Your task to perform on an android device: Open wifi settings Image 0: 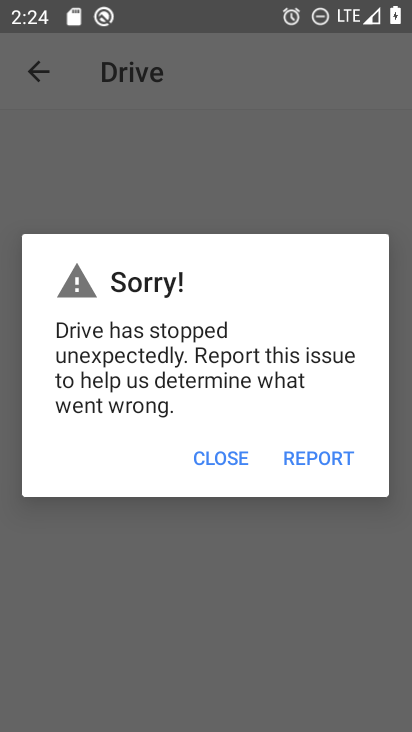
Step 0: press home button
Your task to perform on an android device: Open wifi settings Image 1: 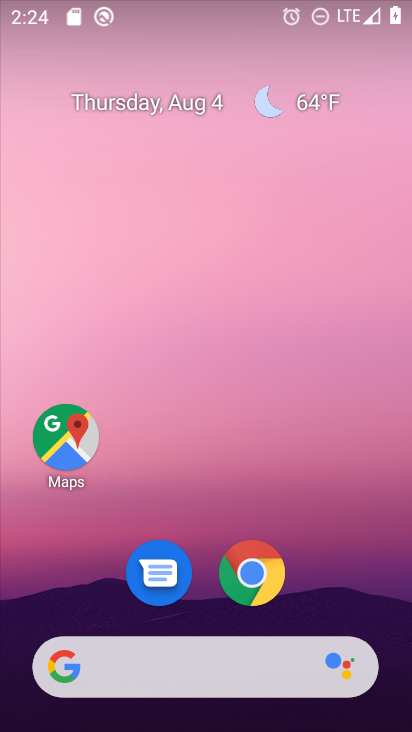
Step 1: drag from (344, 519) to (327, 94)
Your task to perform on an android device: Open wifi settings Image 2: 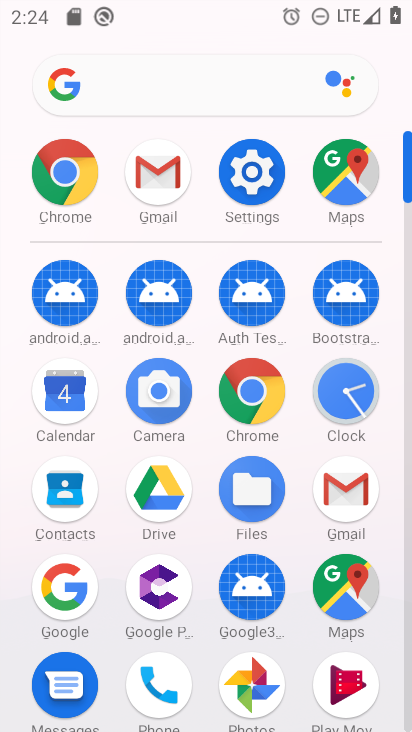
Step 2: click (266, 162)
Your task to perform on an android device: Open wifi settings Image 3: 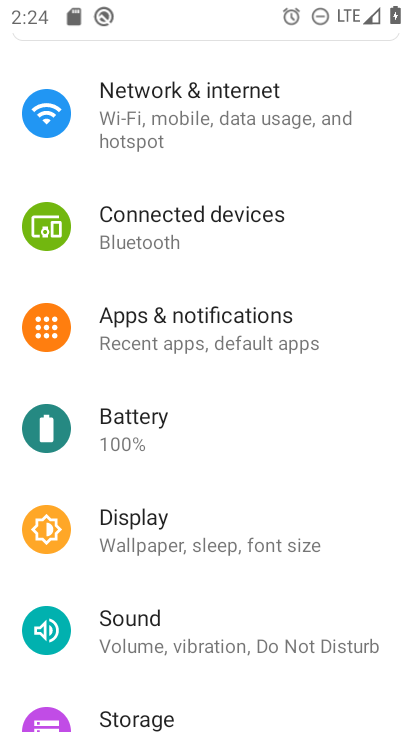
Step 3: click (248, 122)
Your task to perform on an android device: Open wifi settings Image 4: 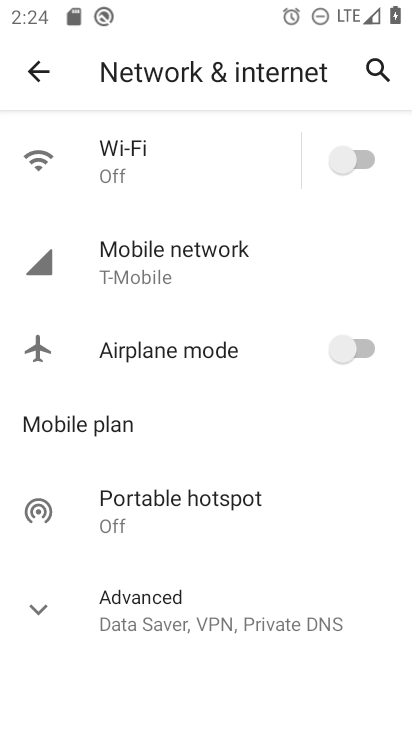
Step 4: click (167, 147)
Your task to perform on an android device: Open wifi settings Image 5: 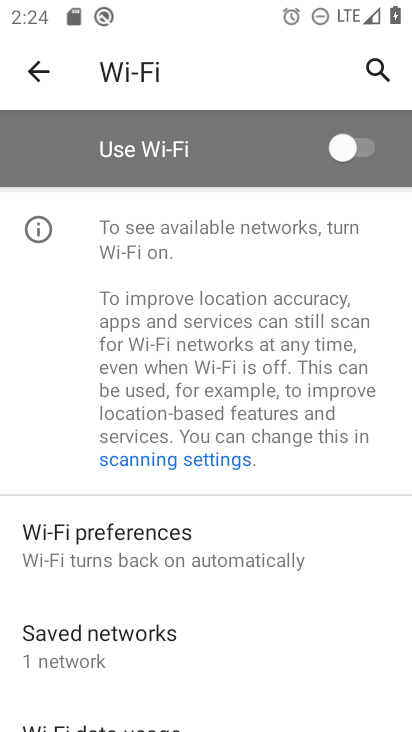
Step 5: click (344, 146)
Your task to perform on an android device: Open wifi settings Image 6: 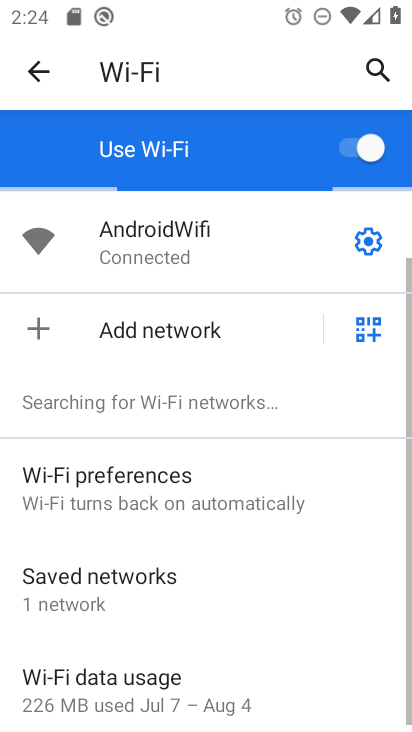
Step 6: click (373, 246)
Your task to perform on an android device: Open wifi settings Image 7: 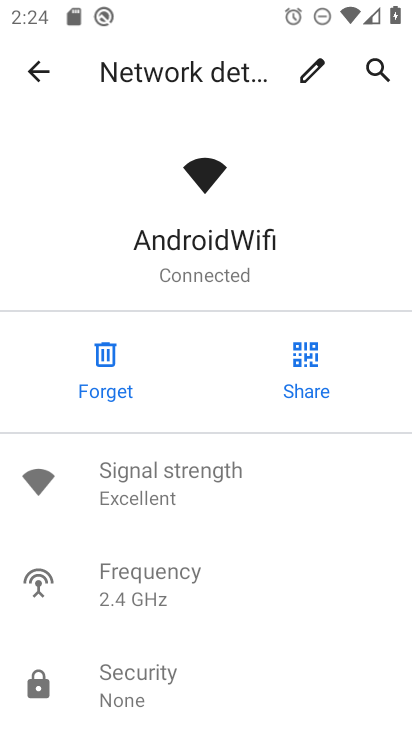
Step 7: task complete